Your task to perform on an android device: Go to display settings Image 0: 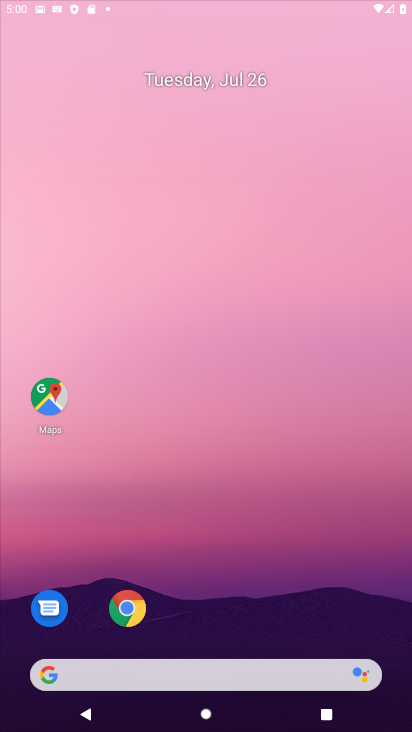
Step 0: press home button
Your task to perform on an android device: Go to display settings Image 1: 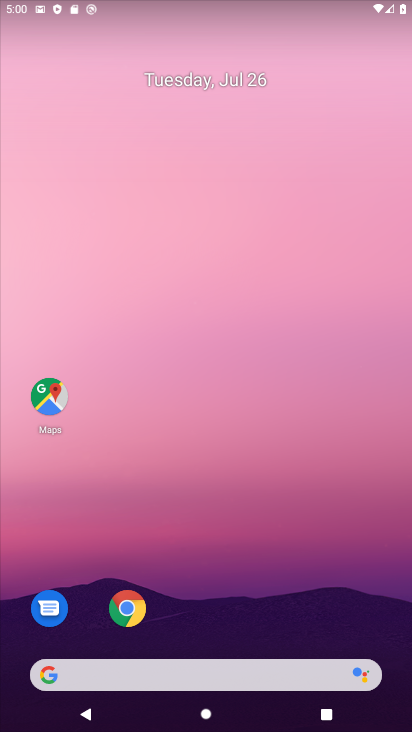
Step 1: drag from (246, 632) to (210, 17)
Your task to perform on an android device: Go to display settings Image 2: 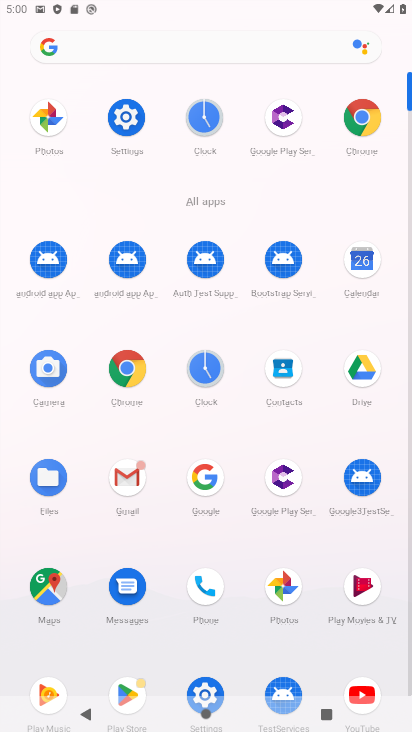
Step 2: click (120, 130)
Your task to perform on an android device: Go to display settings Image 3: 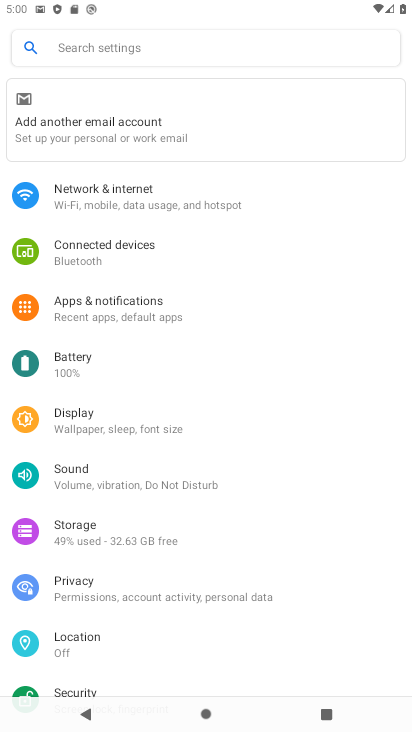
Step 3: click (76, 429)
Your task to perform on an android device: Go to display settings Image 4: 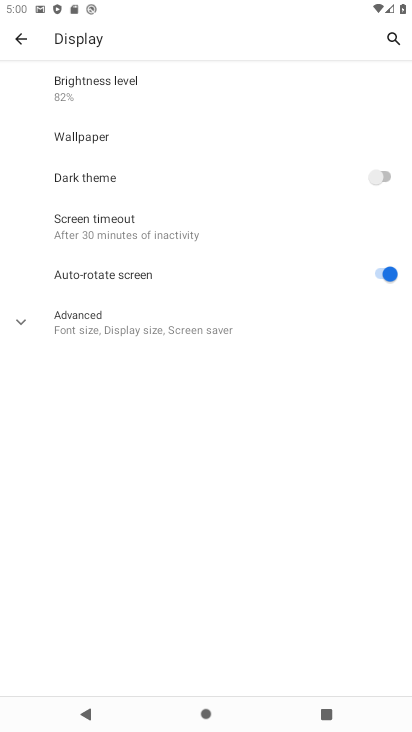
Step 4: task complete